Your task to perform on an android device: turn off airplane mode Image 0: 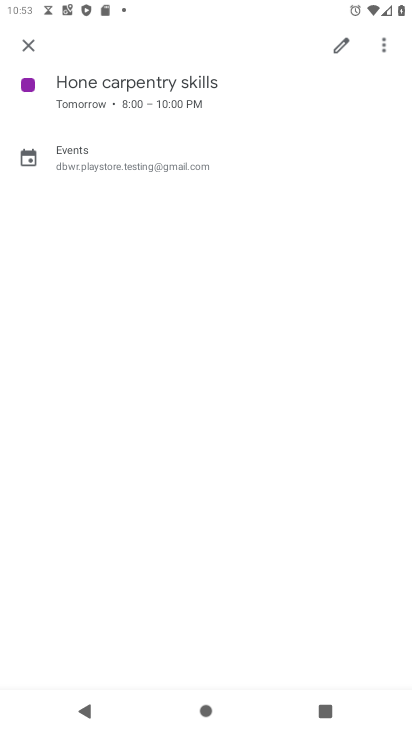
Step 0: press back button
Your task to perform on an android device: turn off airplane mode Image 1: 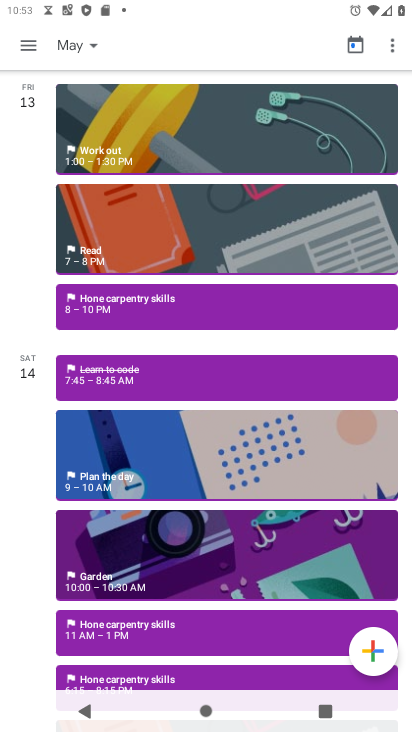
Step 1: press back button
Your task to perform on an android device: turn off airplane mode Image 2: 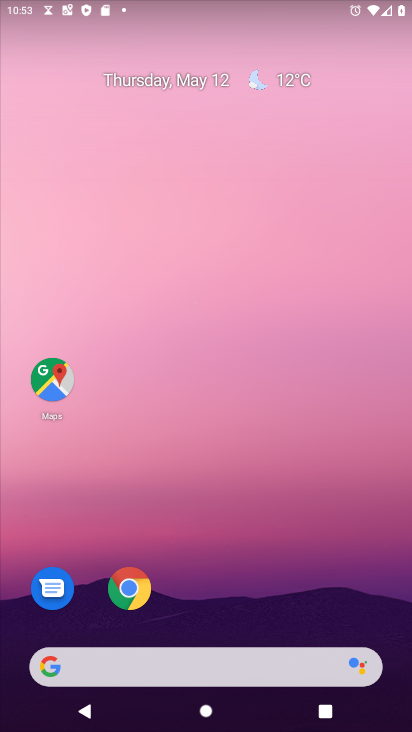
Step 2: drag from (246, 577) to (196, 97)
Your task to perform on an android device: turn off airplane mode Image 3: 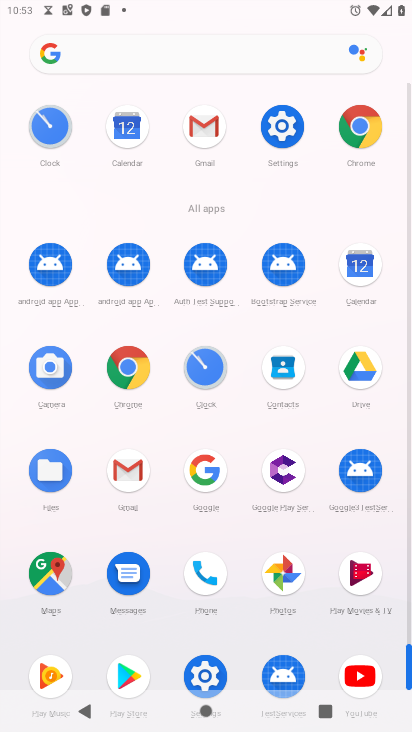
Step 3: click (283, 125)
Your task to perform on an android device: turn off airplane mode Image 4: 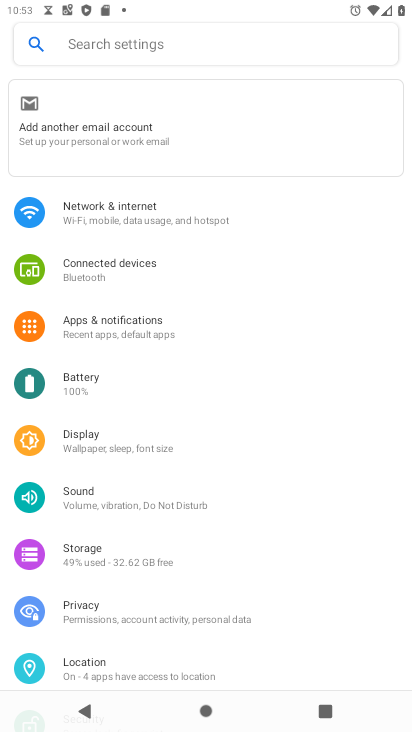
Step 4: click (179, 221)
Your task to perform on an android device: turn off airplane mode Image 5: 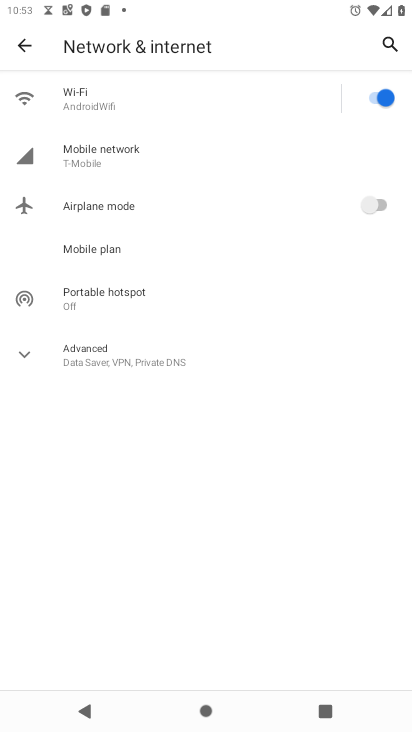
Step 5: task complete